Your task to perform on an android device: Go to sound settings Image 0: 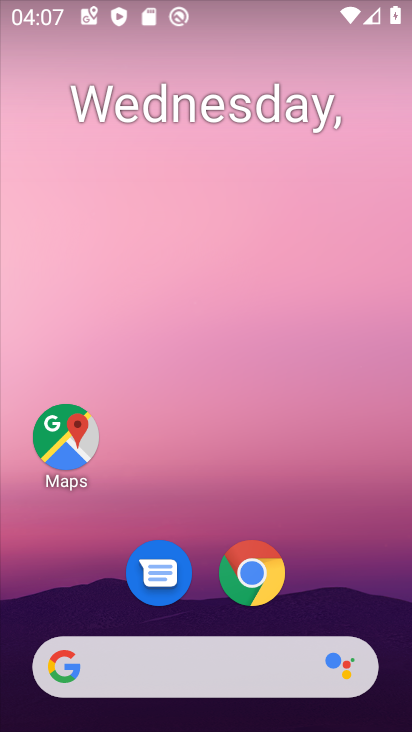
Step 0: drag from (322, 588) to (265, 69)
Your task to perform on an android device: Go to sound settings Image 1: 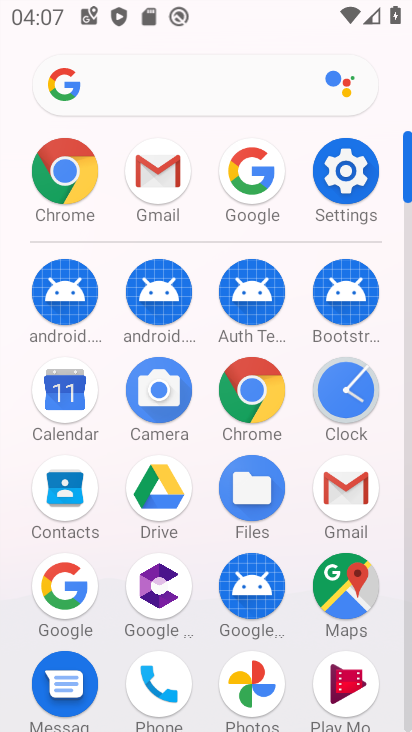
Step 1: click (347, 172)
Your task to perform on an android device: Go to sound settings Image 2: 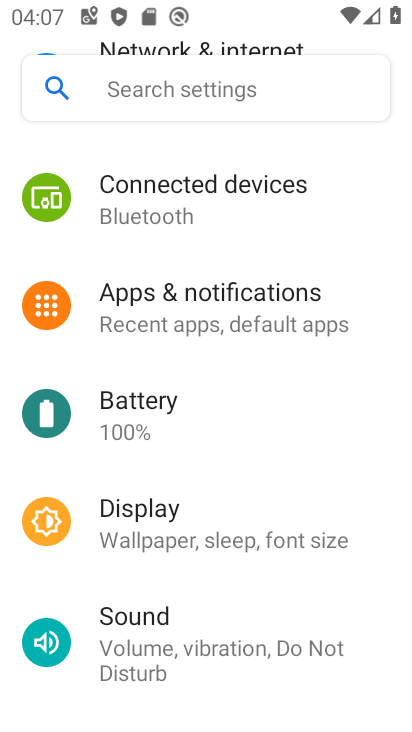
Step 2: drag from (211, 466) to (219, 258)
Your task to perform on an android device: Go to sound settings Image 3: 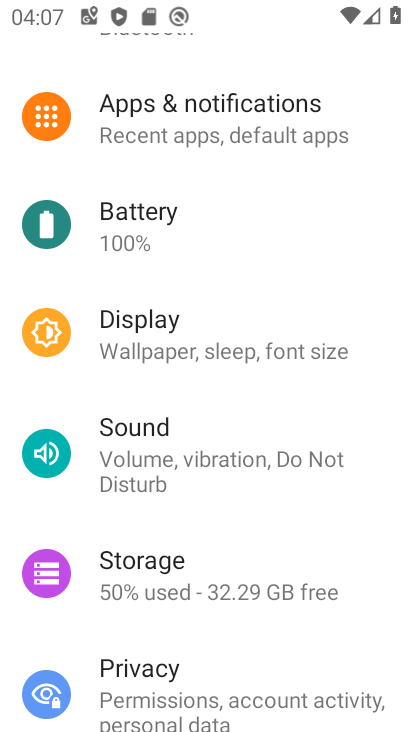
Step 3: click (162, 455)
Your task to perform on an android device: Go to sound settings Image 4: 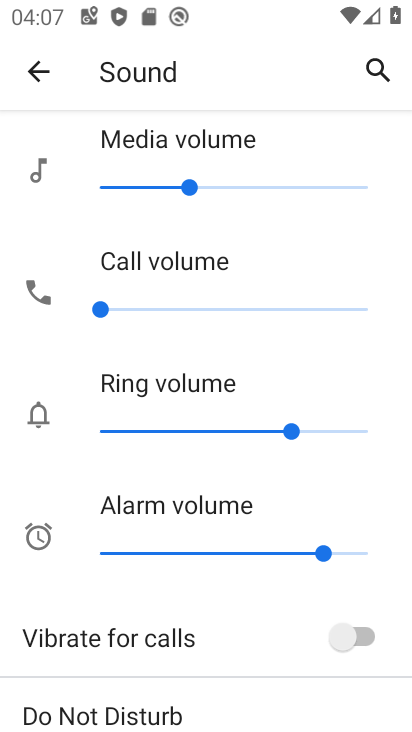
Step 4: task complete